Your task to perform on an android device: turn smart compose on in the gmail app Image 0: 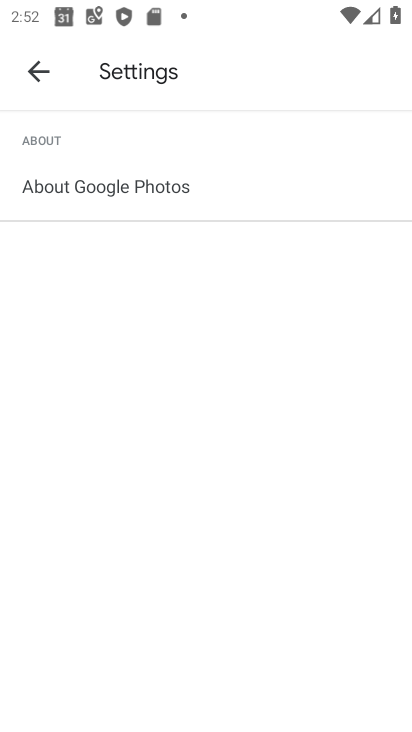
Step 0: press home button
Your task to perform on an android device: turn smart compose on in the gmail app Image 1: 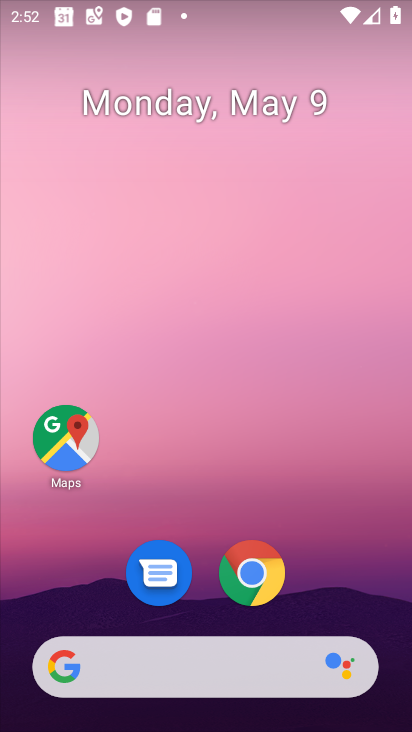
Step 1: drag from (151, 622) to (229, 222)
Your task to perform on an android device: turn smart compose on in the gmail app Image 2: 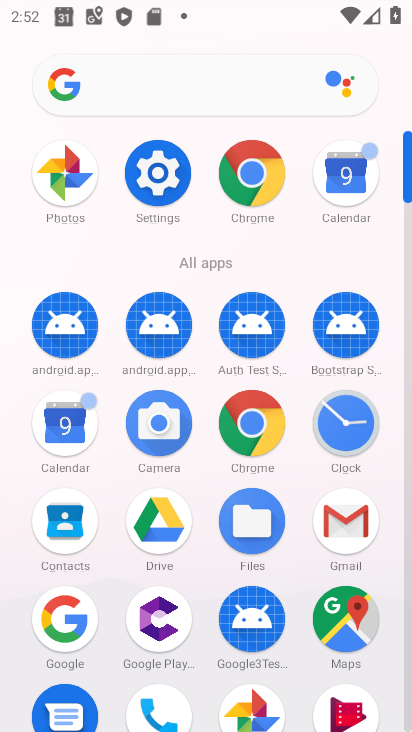
Step 2: click (348, 525)
Your task to perform on an android device: turn smart compose on in the gmail app Image 3: 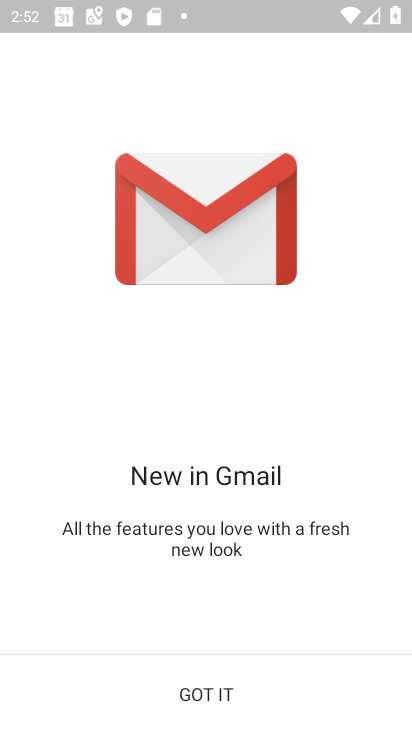
Step 3: click (206, 688)
Your task to perform on an android device: turn smart compose on in the gmail app Image 4: 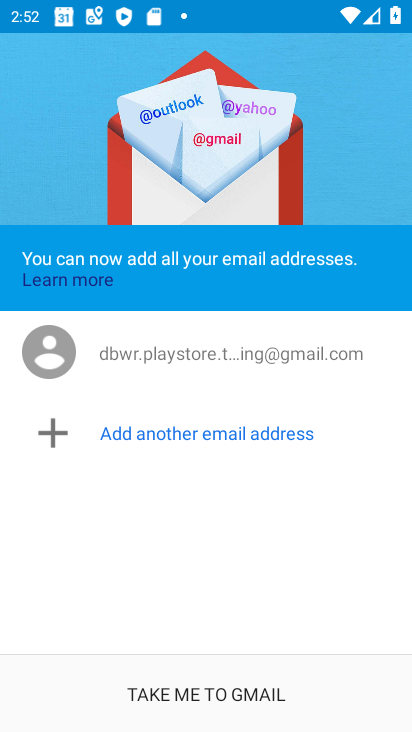
Step 4: click (241, 687)
Your task to perform on an android device: turn smart compose on in the gmail app Image 5: 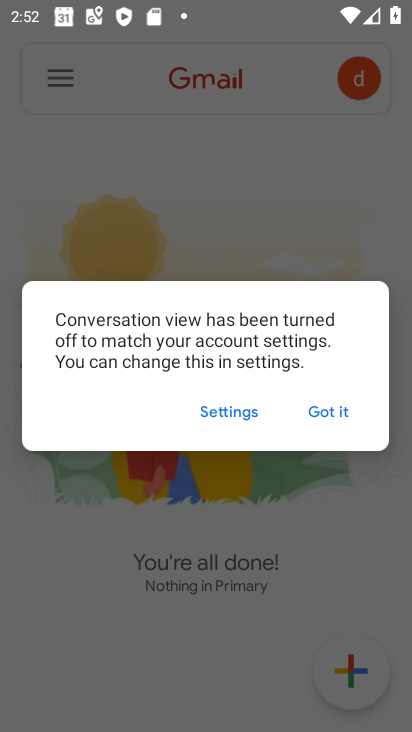
Step 5: click (315, 412)
Your task to perform on an android device: turn smart compose on in the gmail app Image 6: 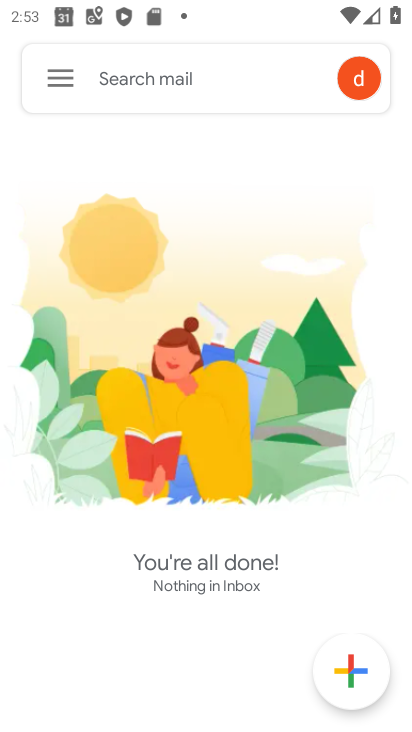
Step 6: click (66, 91)
Your task to perform on an android device: turn smart compose on in the gmail app Image 7: 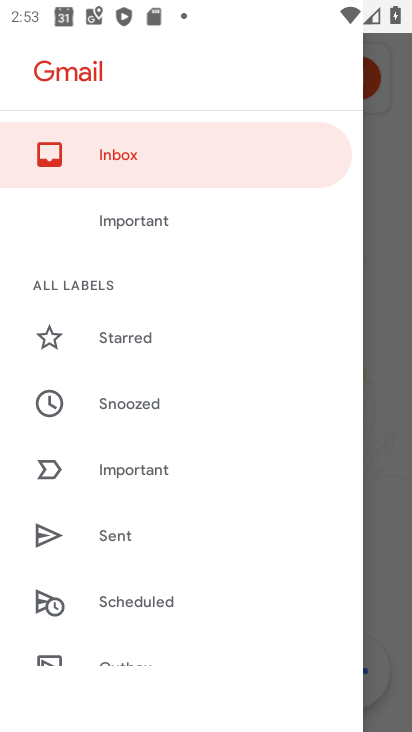
Step 7: drag from (154, 673) to (186, 331)
Your task to perform on an android device: turn smart compose on in the gmail app Image 8: 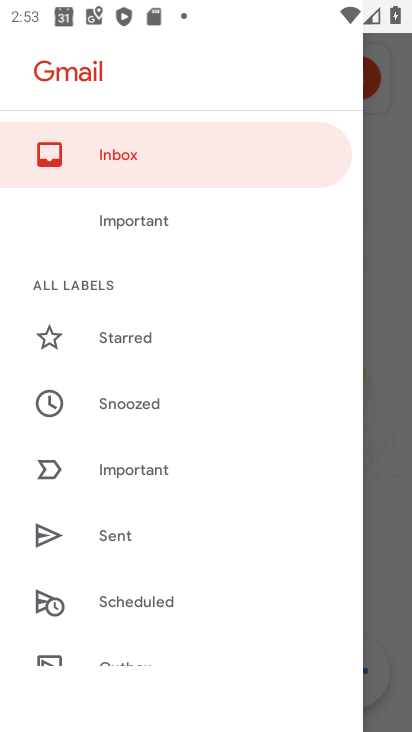
Step 8: drag from (154, 636) to (206, 274)
Your task to perform on an android device: turn smart compose on in the gmail app Image 9: 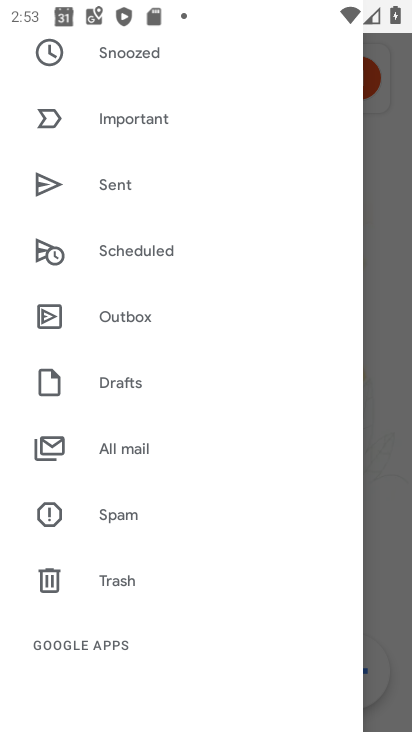
Step 9: drag from (99, 618) to (179, 202)
Your task to perform on an android device: turn smart compose on in the gmail app Image 10: 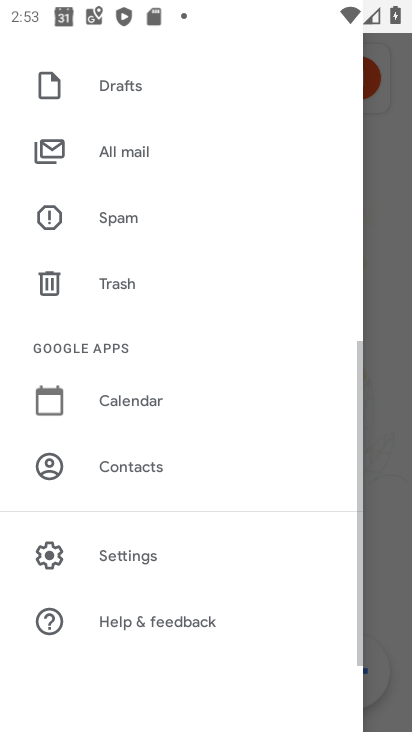
Step 10: click (113, 545)
Your task to perform on an android device: turn smart compose on in the gmail app Image 11: 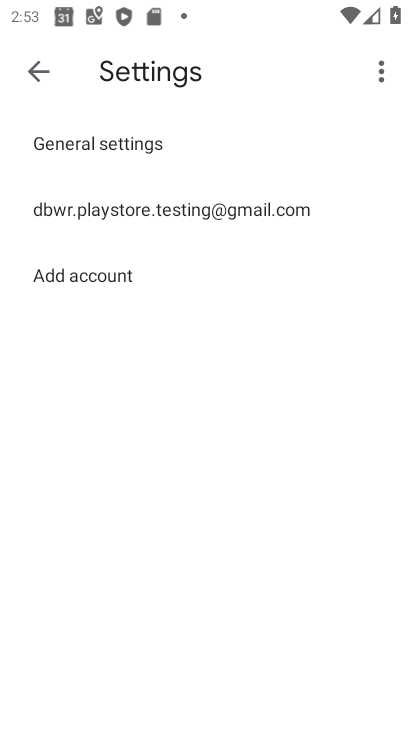
Step 11: click (131, 213)
Your task to perform on an android device: turn smart compose on in the gmail app Image 12: 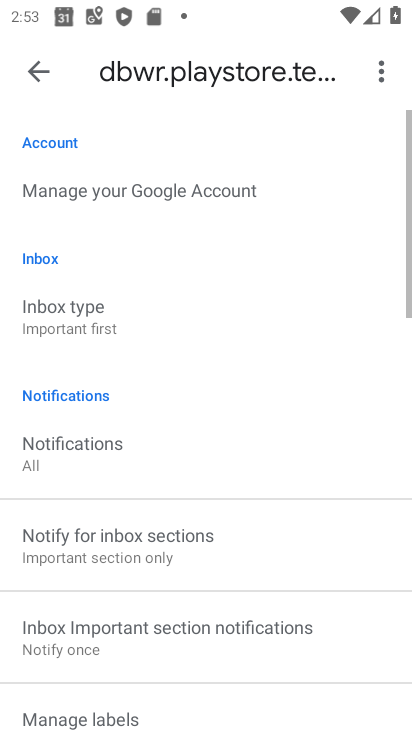
Step 12: task complete